Your task to perform on an android device: change keyboard looks Image 0: 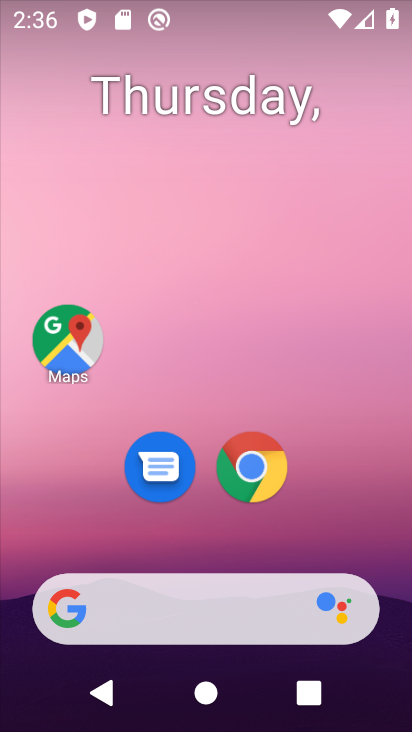
Step 0: drag from (169, 605) to (75, 17)
Your task to perform on an android device: change keyboard looks Image 1: 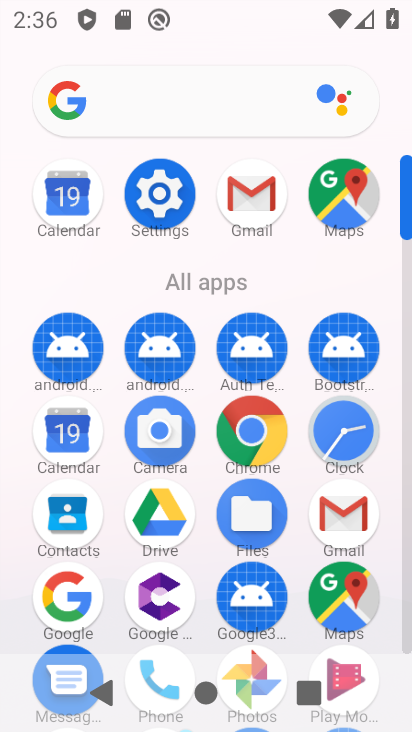
Step 1: click (167, 183)
Your task to perform on an android device: change keyboard looks Image 2: 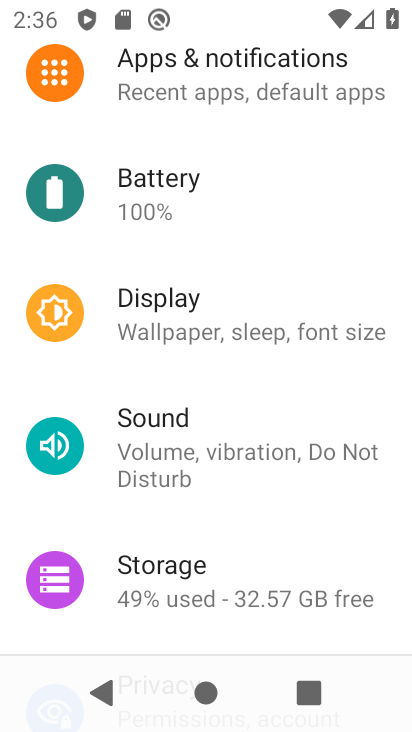
Step 2: drag from (245, 551) to (263, 15)
Your task to perform on an android device: change keyboard looks Image 3: 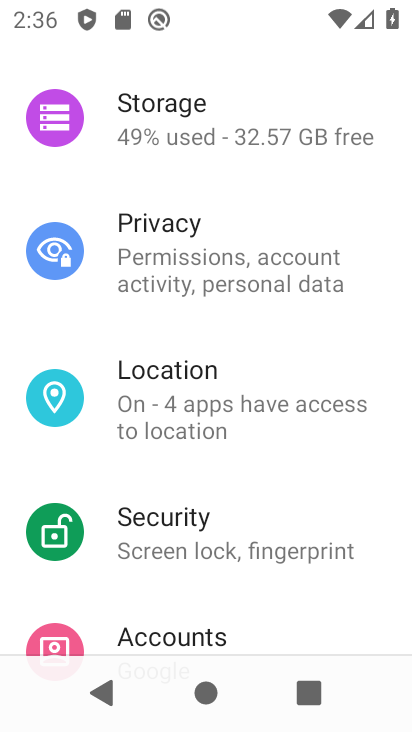
Step 3: drag from (116, 564) to (185, 71)
Your task to perform on an android device: change keyboard looks Image 4: 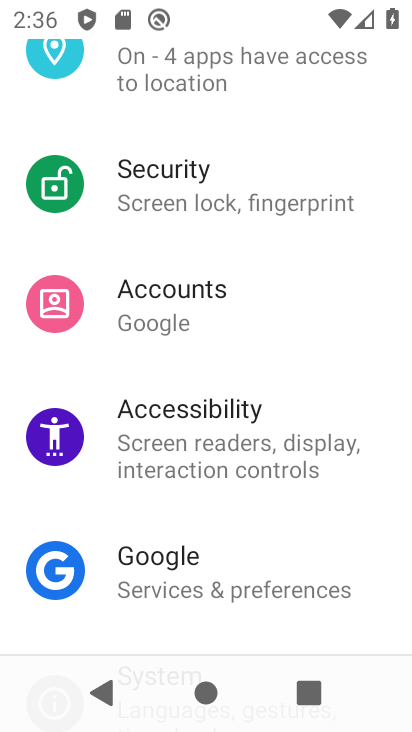
Step 4: drag from (227, 533) to (275, 48)
Your task to perform on an android device: change keyboard looks Image 5: 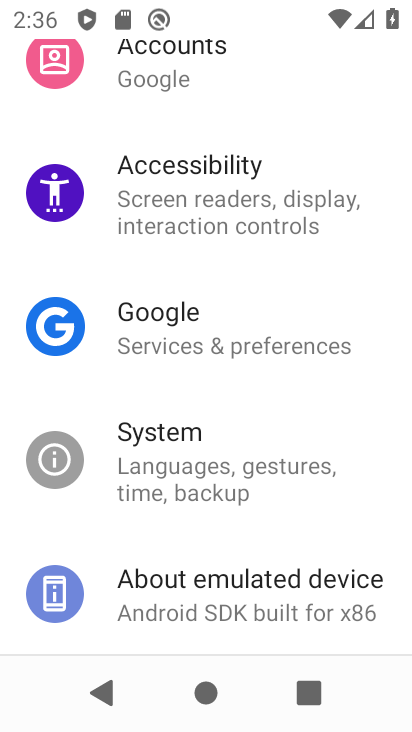
Step 5: click (197, 437)
Your task to perform on an android device: change keyboard looks Image 6: 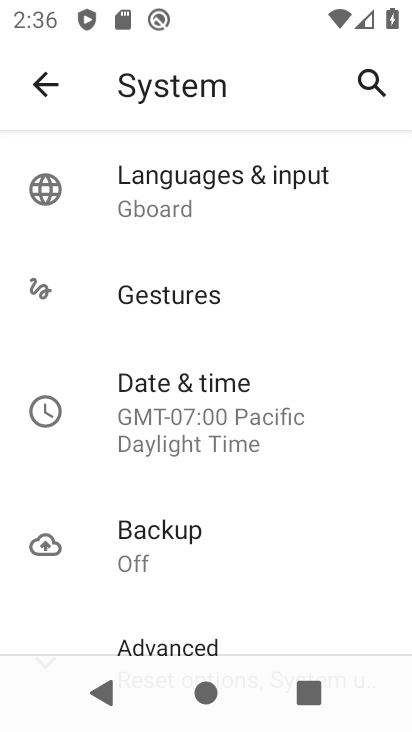
Step 6: click (182, 180)
Your task to perform on an android device: change keyboard looks Image 7: 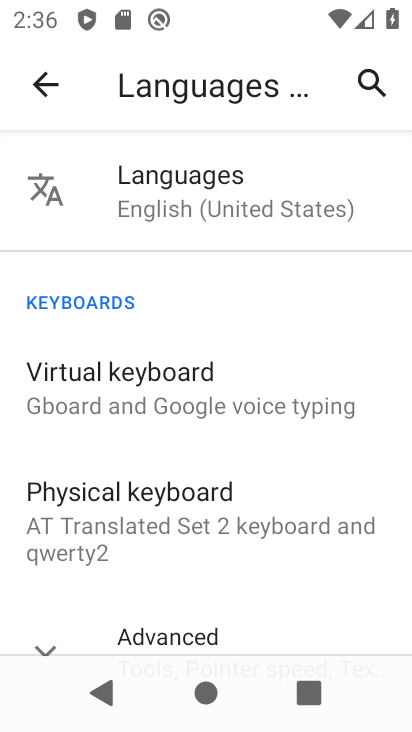
Step 7: click (88, 397)
Your task to perform on an android device: change keyboard looks Image 8: 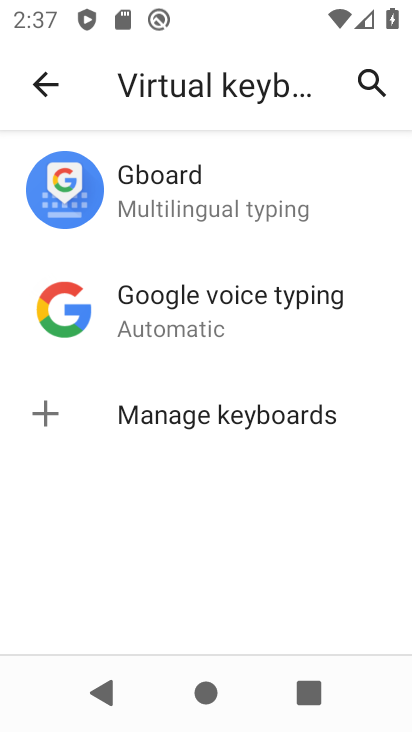
Step 8: click (194, 199)
Your task to perform on an android device: change keyboard looks Image 9: 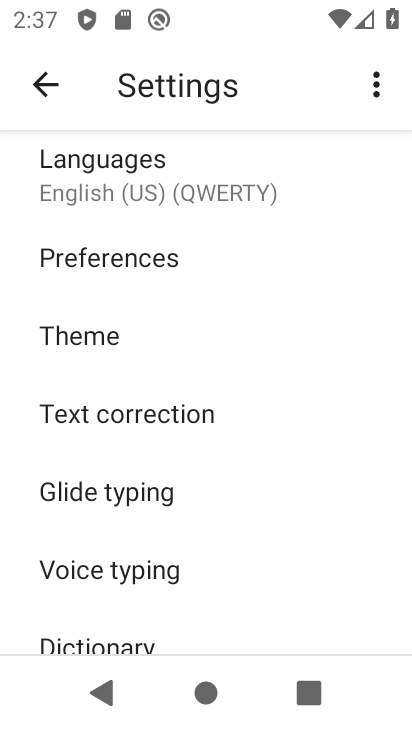
Step 9: click (72, 352)
Your task to perform on an android device: change keyboard looks Image 10: 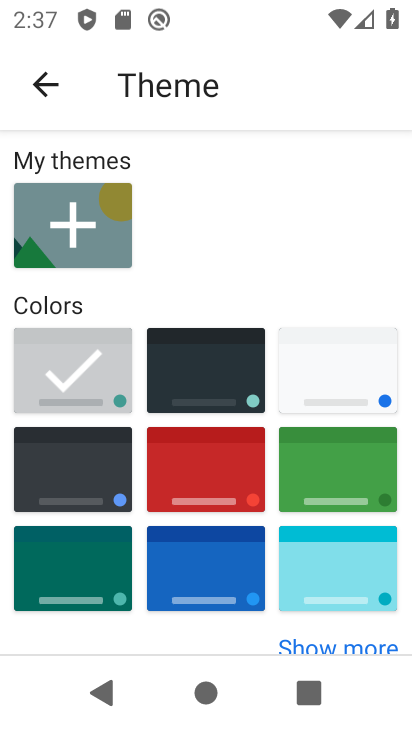
Step 10: click (223, 504)
Your task to perform on an android device: change keyboard looks Image 11: 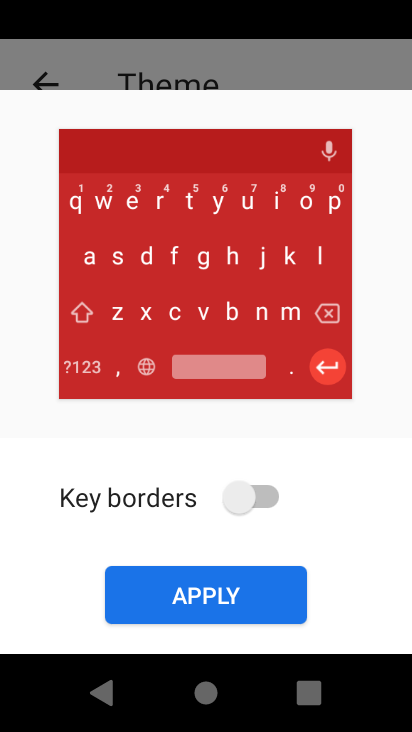
Step 11: click (256, 501)
Your task to perform on an android device: change keyboard looks Image 12: 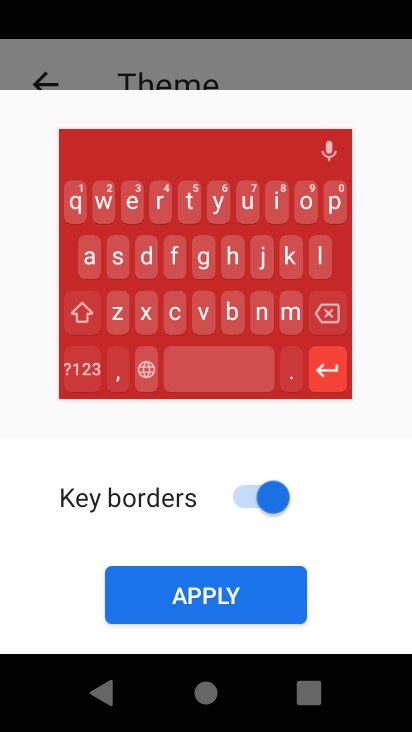
Step 12: click (223, 589)
Your task to perform on an android device: change keyboard looks Image 13: 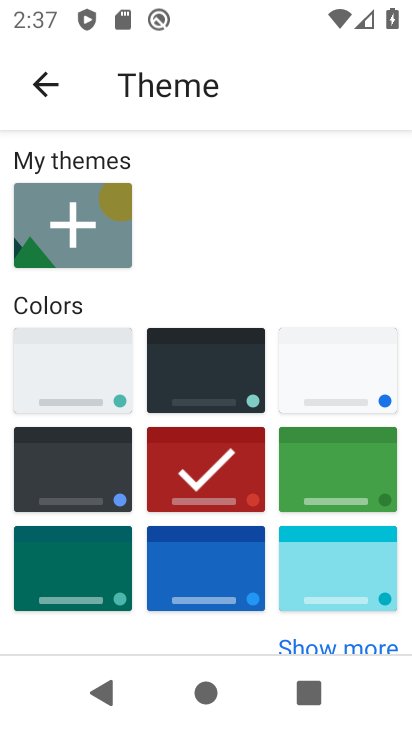
Step 13: task complete